Your task to perform on an android device: toggle sleep mode Image 0: 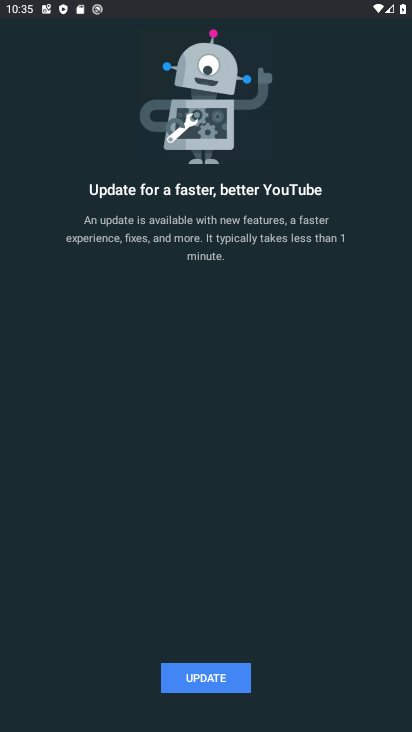
Step 0: press home button
Your task to perform on an android device: toggle sleep mode Image 1: 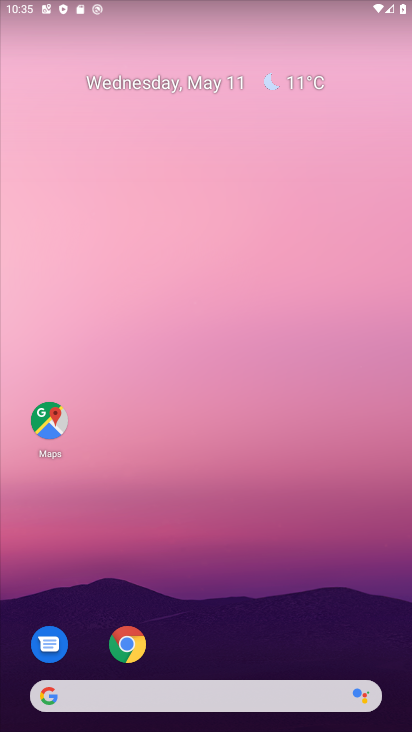
Step 1: drag from (318, 561) to (309, 1)
Your task to perform on an android device: toggle sleep mode Image 2: 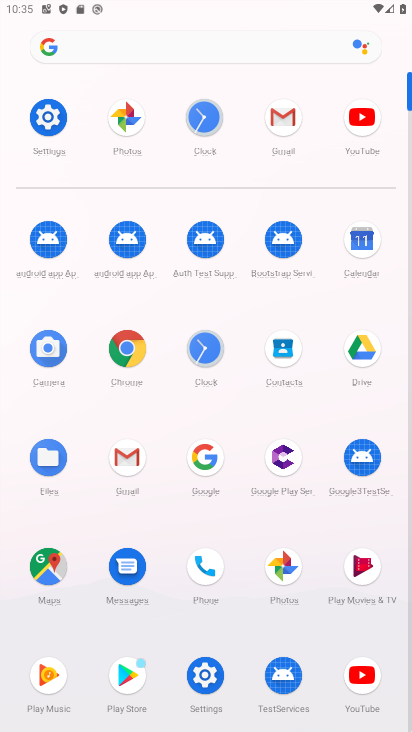
Step 2: click (46, 128)
Your task to perform on an android device: toggle sleep mode Image 3: 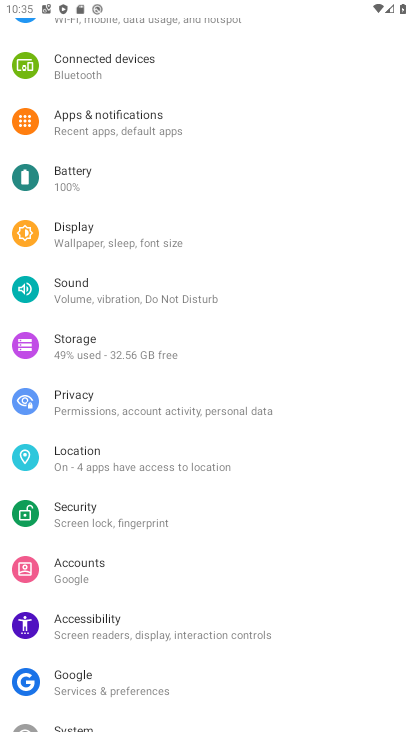
Step 3: click (55, 243)
Your task to perform on an android device: toggle sleep mode Image 4: 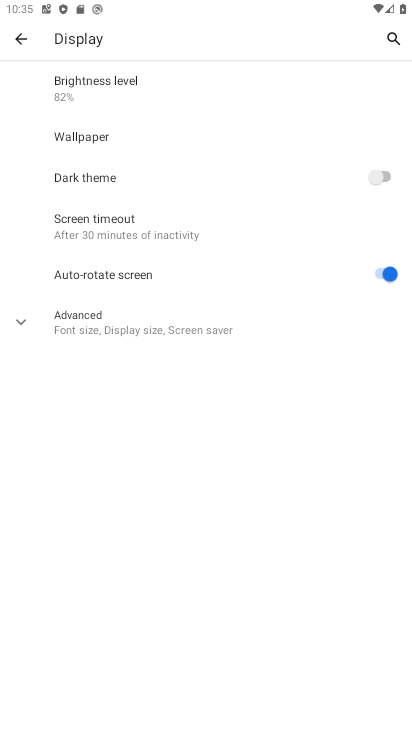
Step 4: click (29, 333)
Your task to perform on an android device: toggle sleep mode Image 5: 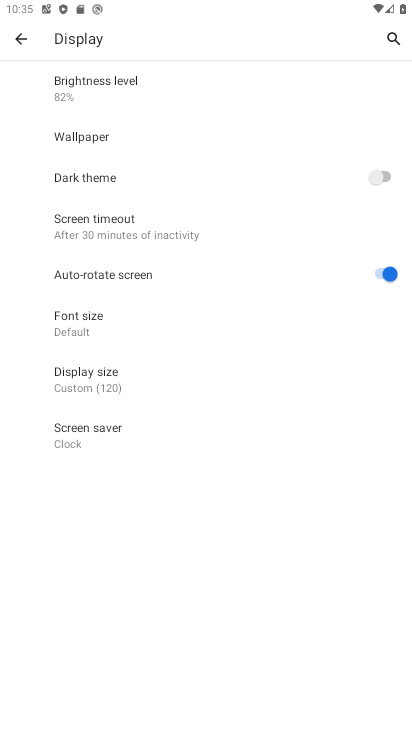
Step 5: task complete